Your task to perform on an android device: Check the weather Image 0: 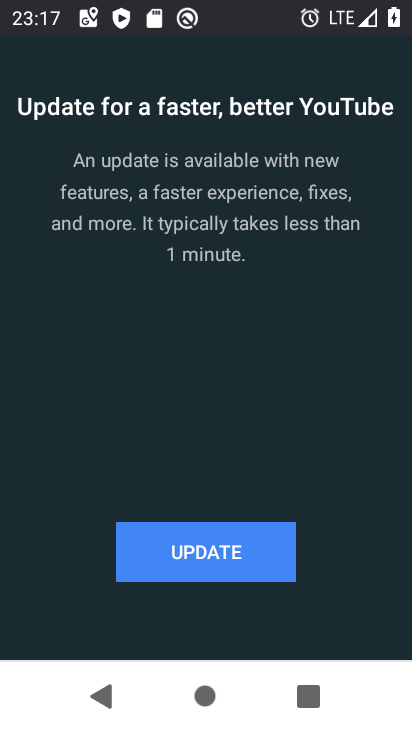
Step 0: press home button
Your task to perform on an android device: Check the weather Image 1: 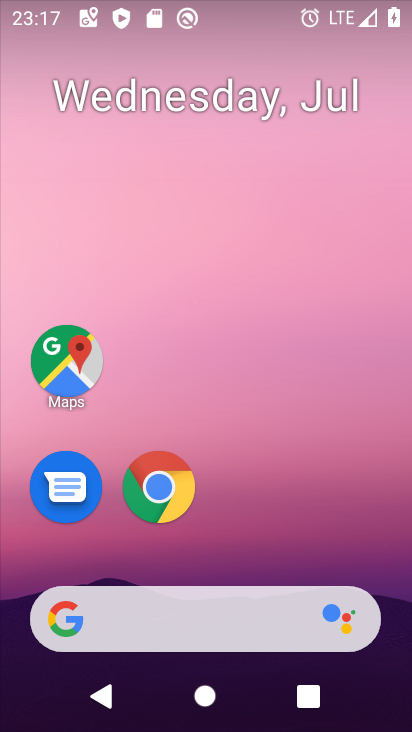
Step 1: click (156, 611)
Your task to perform on an android device: Check the weather Image 2: 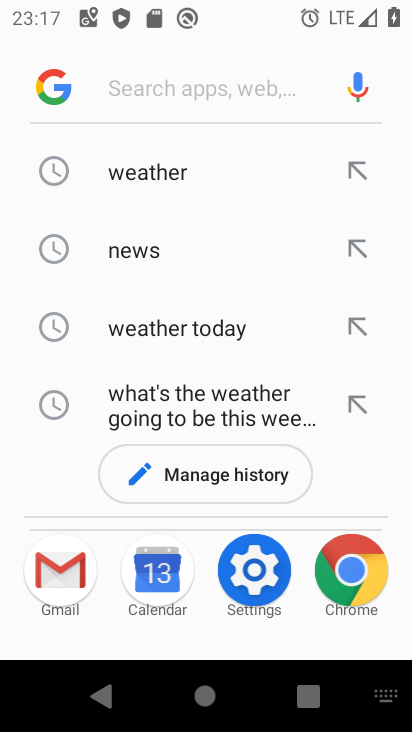
Step 2: click (130, 174)
Your task to perform on an android device: Check the weather Image 3: 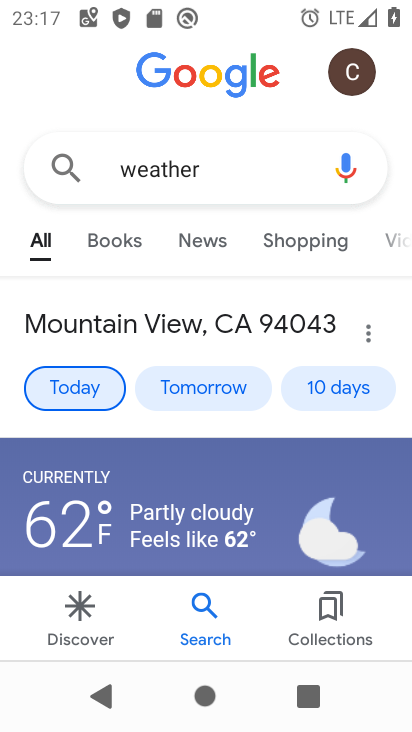
Step 3: task complete